Your task to perform on an android device: Check the weather Image 0: 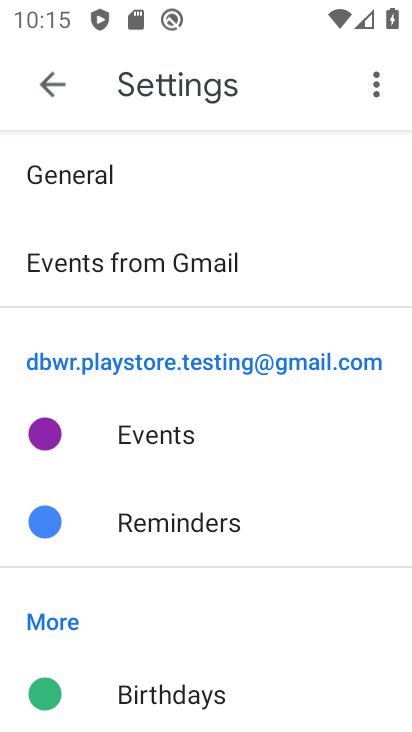
Step 0: press home button
Your task to perform on an android device: Check the weather Image 1: 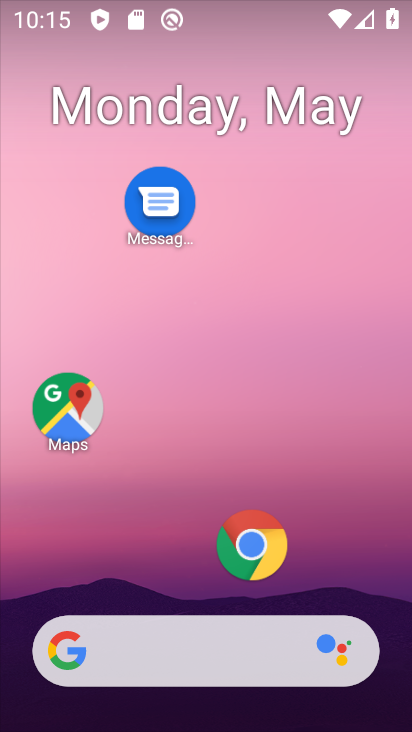
Step 1: drag from (148, 583) to (237, 0)
Your task to perform on an android device: Check the weather Image 2: 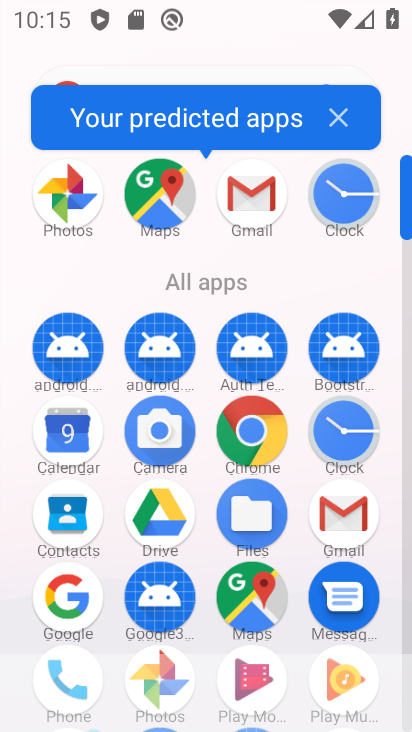
Step 2: click (145, 98)
Your task to perform on an android device: Check the weather Image 3: 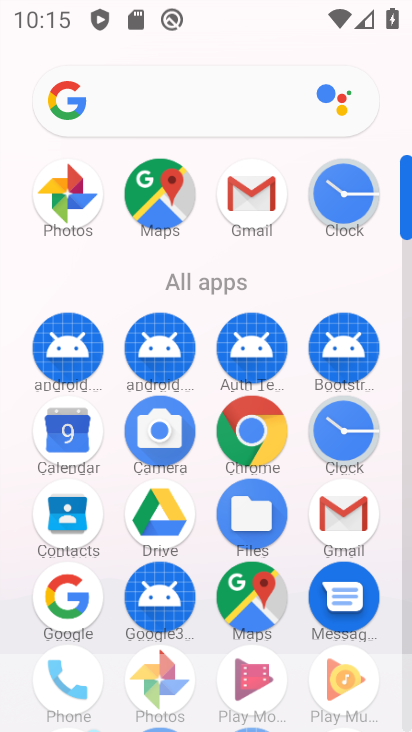
Step 3: click (135, 89)
Your task to perform on an android device: Check the weather Image 4: 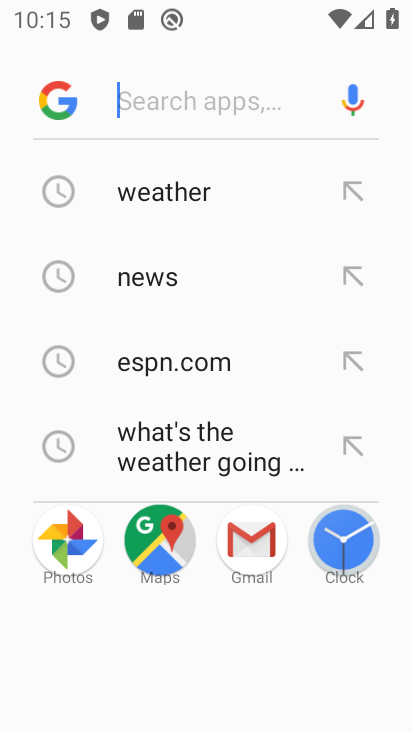
Step 4: type "weather"
Your task to perform on an android device: Check the weather Image 5: 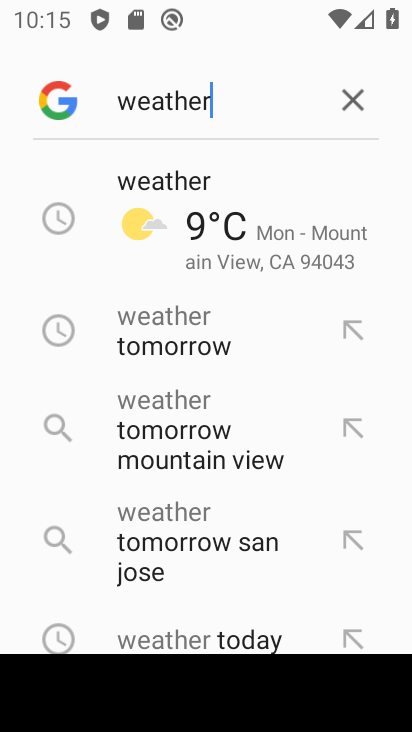
Step 5: click (286, 212)
Your task to perform on an android device: Check the weather Image 6: 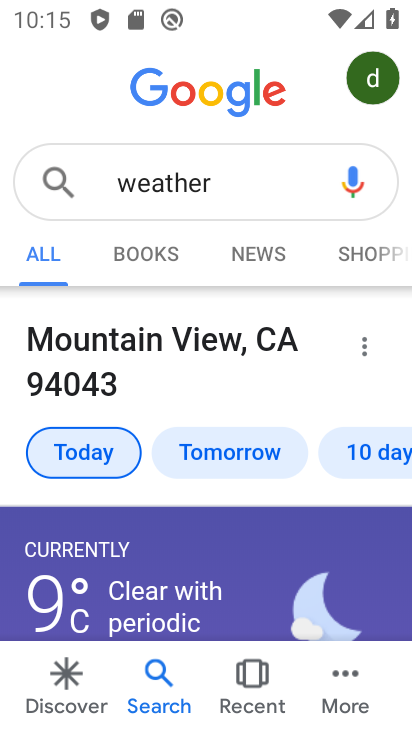
Step 6: task complete